Your task to perform on an android device: turn on sleep mode Image 0: 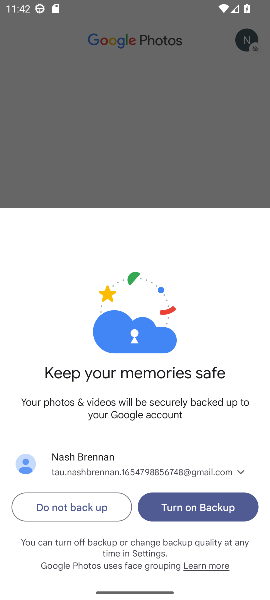
Step 0: press home button
Your task to perform on an android device: turn on sleep mode Image 1: 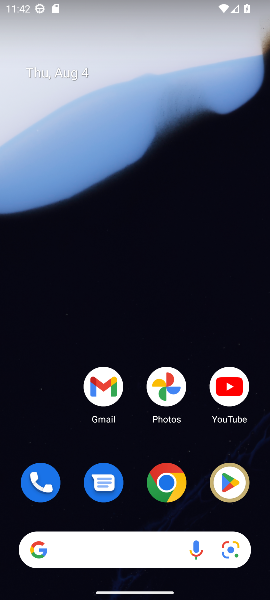
Step 1: drag from (127, 461) to (123, 171)
Your task to perform on an android device: turn on sleep mode Image 2: 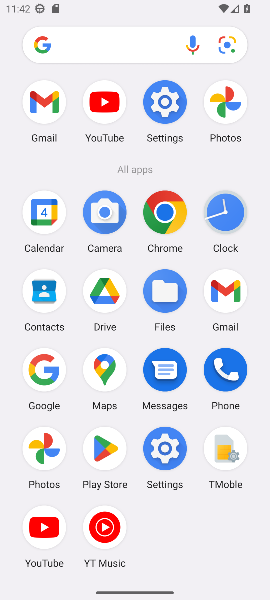
Step 2: click (163, 104)
Your task to perform on an android device: turn on sleep mode Image 3: 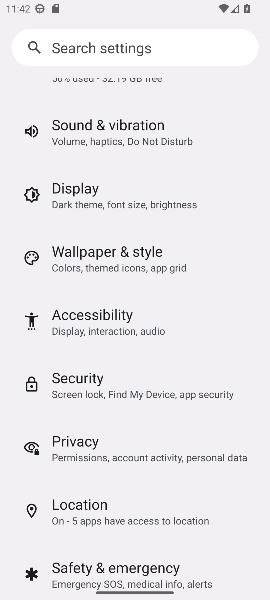
Step 3: click (129, 209)
Your task to perform on an android device: turn on sleep mode Image 4: 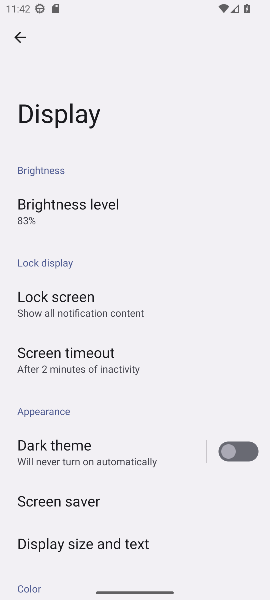
Step 4: click (102, 360)
Your task to perform on an android device: turn on sleep mode Image 5: 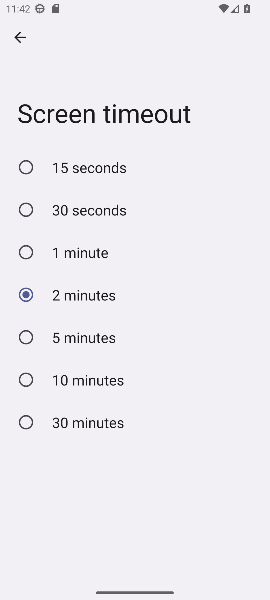
Step 5: click (102, 360)
Your task to perform on an android device: turn on sleep mode Image 6: 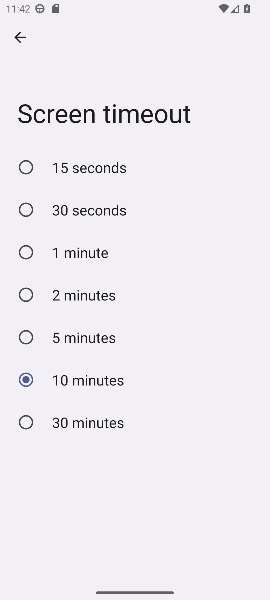
Step 6: task complete